Your task to perform on an android device: Open Google Chrome and click the shortcut for Amazon.com Image 0: 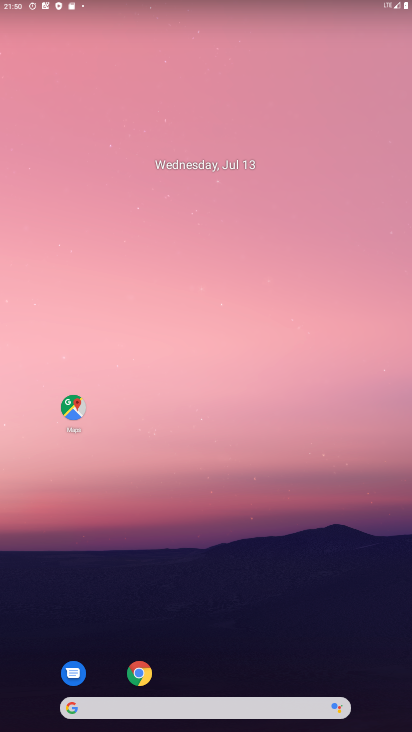
Step 0: drag from (179, 513) to (163, 274)
Your task to perform on an android device: Open Google Chrome and click the shortcut for Amazon.com Image 1: 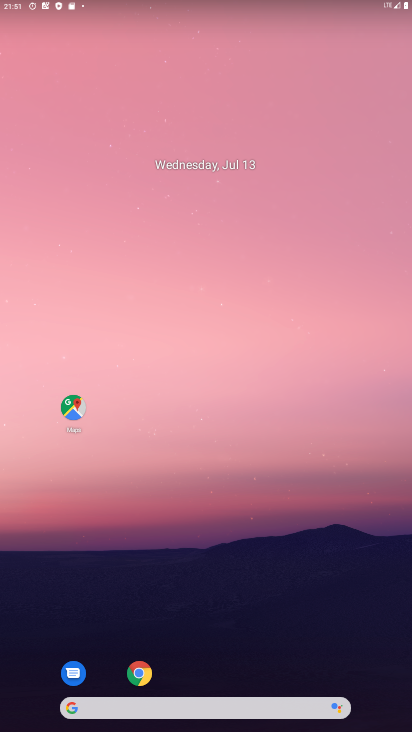
Step 1: drag from (198, 673) to (264, 270)
Your task to perform on an android device: Open Google Chrome and click the shortcut for Amazon.com Image 2: 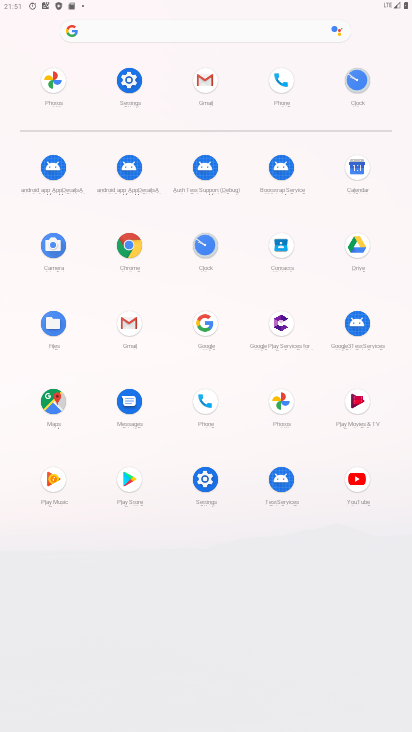
Step 2: click (124, 237)
Your task to perform on an android device: Open Google Chrome and click the shortcut for Amazon.com Image 3: 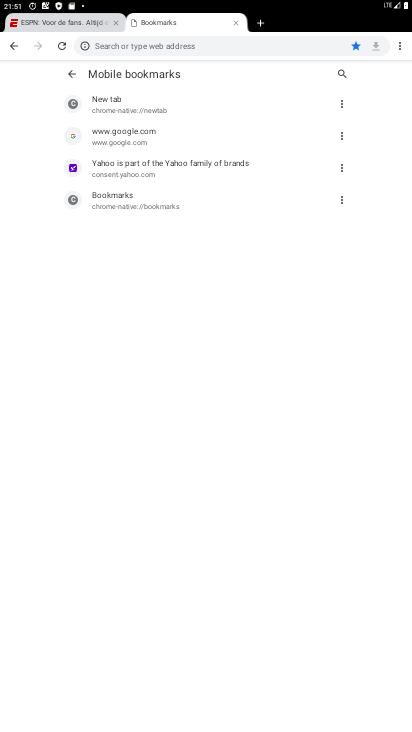
Step 3: click (257, 24)
Your task to perform on an android device: Open Google Chrome and click the shortcut for Amazon.com Image 4: 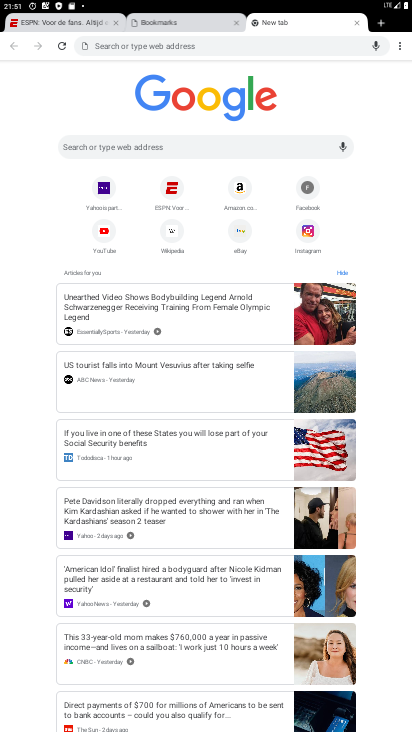
Step 4: click (238, 199)
Your task to perform on an android device: Open Google Chrome and click the shortcut for Amazon.com Image 5: 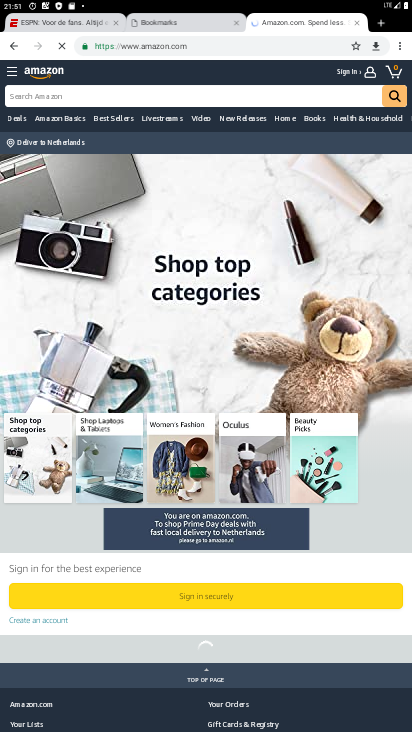
Step 5: drag from (212, 611) to (259, 402)
Your task to perform on an android device: Open Google Chrome and click the shortcut for Amazon.com Image 6: 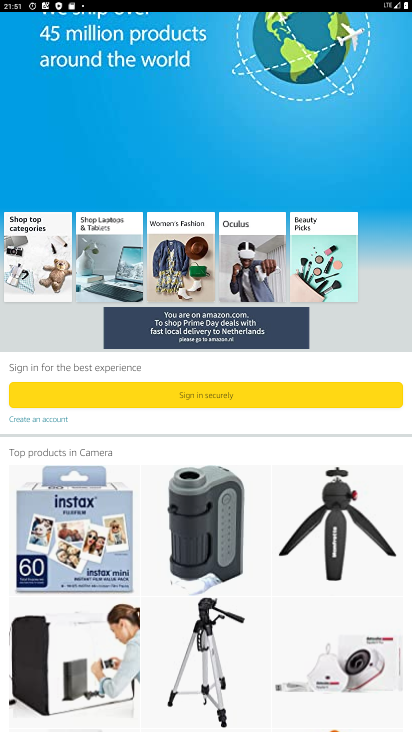
Step 6: drag from (266, 699) to (281, 335)
Your task to perform on an android device: Open Google Chrome and click the shortcut for Amazon.com Image 7: 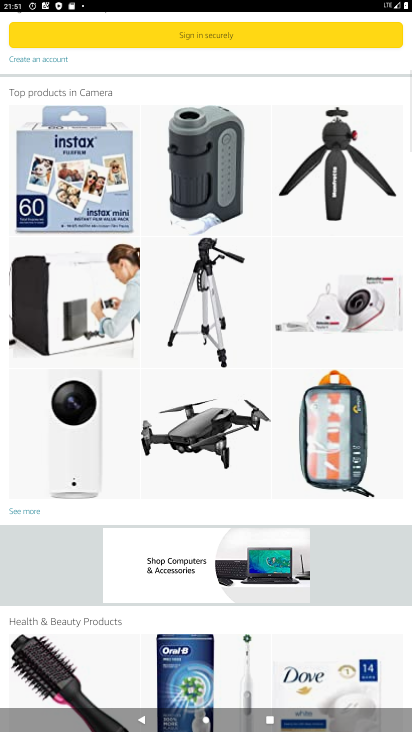
Step 7: drag from (187, 223) to (247, 714)
Your task to perform on an android device: Open Google Chrome and click the shortcut for Amazon.com Image 8: 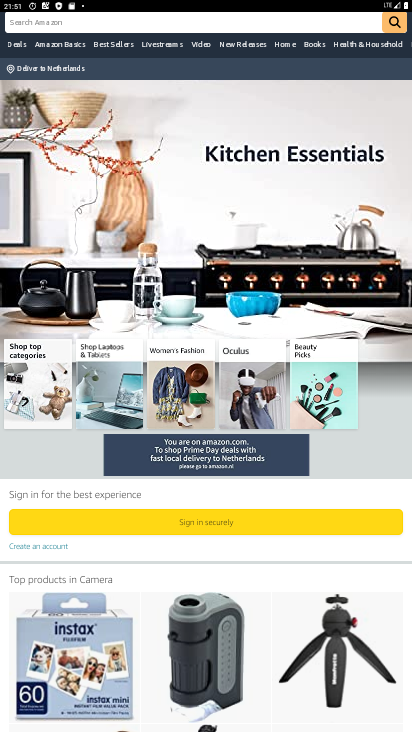
Step 8: drag from (248, 285) to (249, 698)
Your task to perform on an android device: Open Google Chrome and click the shortcut for Amazon.com Image 9: 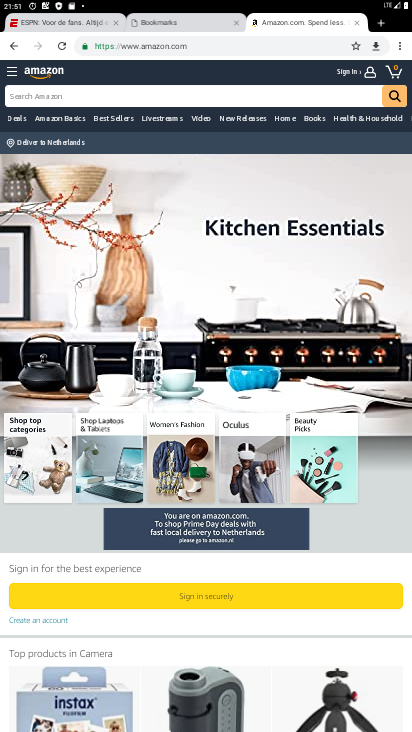
Step 9: click (399, 49)
Your task to perform on an android device: Open Google Chrome and click the shortcut for Amazon.com Image 10: 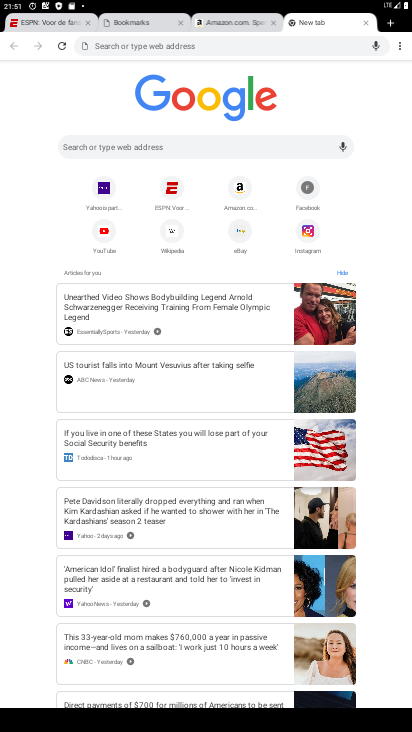
Step 10: drag from (229, 526) to (276, 177)
Your task to perform on an android device: Open Google Chrome and click the shortcut for Amazon.com Image 11: 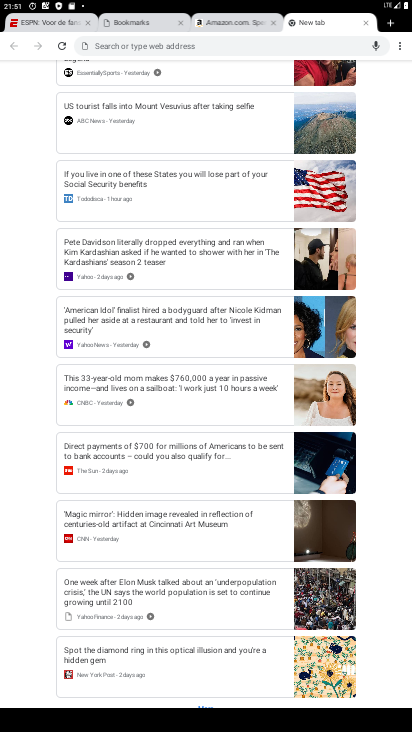
Step 11: drag from (203, 181) to (202, 677)
Your task to perform on an android device: Open Google Chrome and click the shortcut for Amazon.com Image 12: 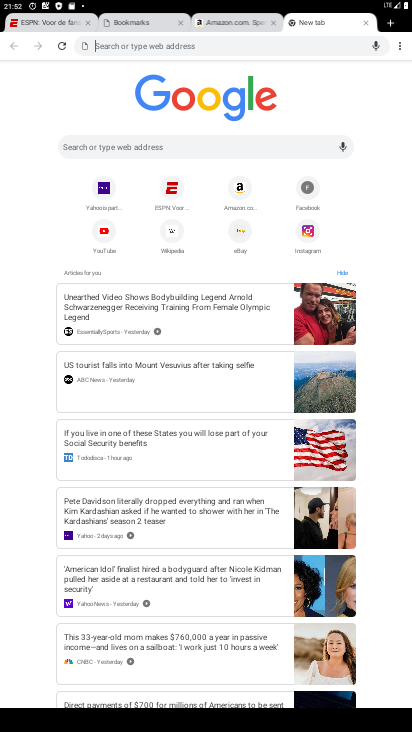
Step 12: drag from (210, 125) to (222, 469)
Your task to perform on an android device: Open Google Chrome and click the shortcut for Amazon.com Image 13: 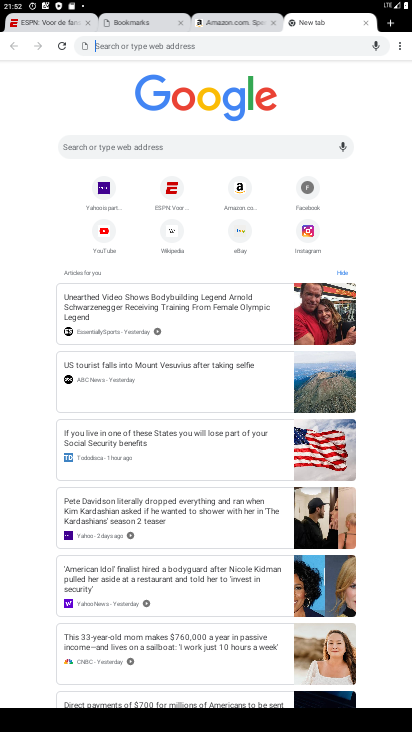
Step 13: drag from (213, 151) to (204, 486)
Your task to perform on an android device: Open Google Chrome and click the shortcut for Amazon.com Image 14: 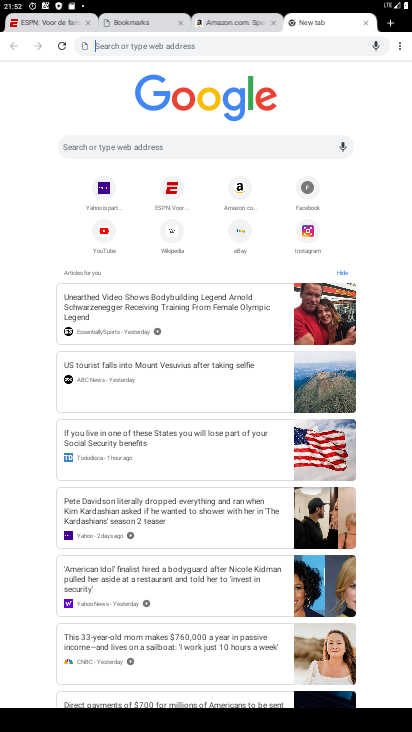
Step 14: drag from (203, 213) to (177, 473)
Your task to perform on an android device: Open Google Chrome and click the shortcut for Amazon.com Image 15: 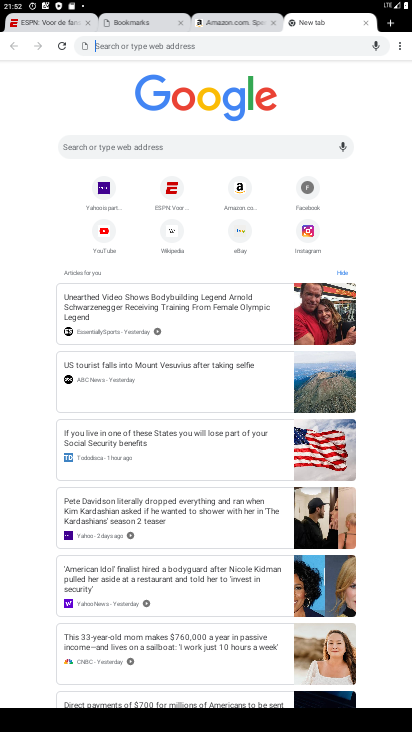
Step 15: drag from (211, 220) to (166, 627)
Your task to perform on an android device: Open Google Chrome and click the shortcut for Amazon.com Image 16: 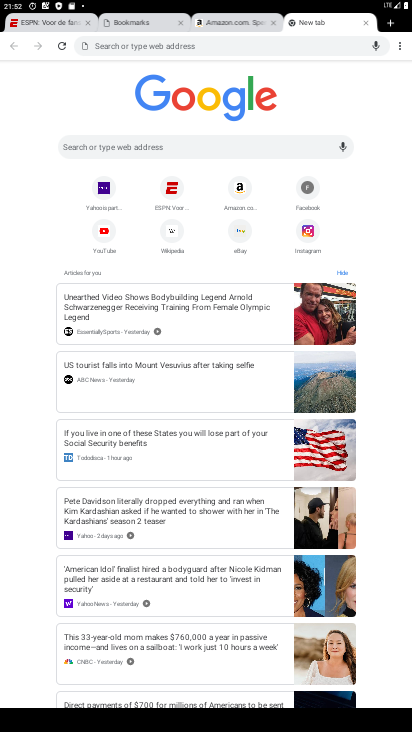
Step 16: click (235, 178)
Your task to perform on an android device: Open Google Chrome and click the shortcut for Amazon.com Image 17: 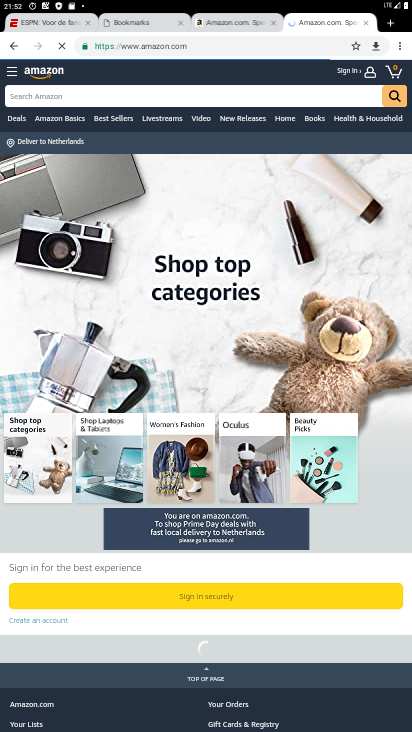
Step 17: task complete